Your task to perform on an android device: turn off data saver in the chrome app Image 0: 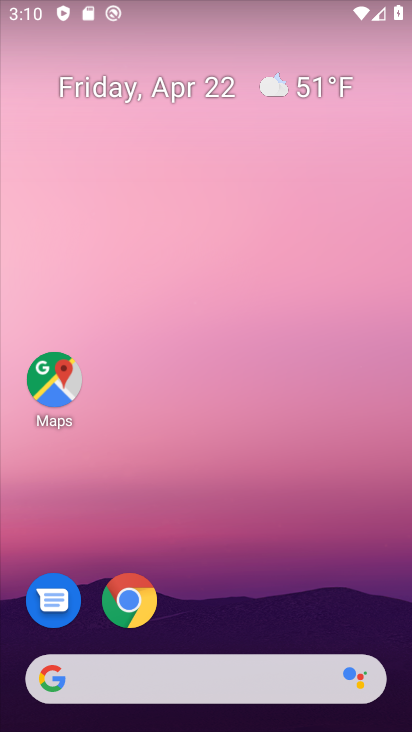
Step 0: drag from (267, 646) to (191, 112)
Your task to perform on an android device: turn off data saver in the chrome app Image 1: 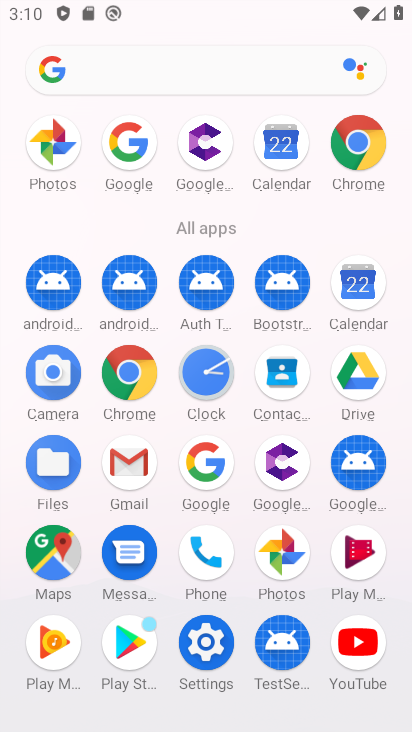
Step 1: click (354, 131)
Your task to perform on an android device: turn off data saver in the chrome app Image 2: 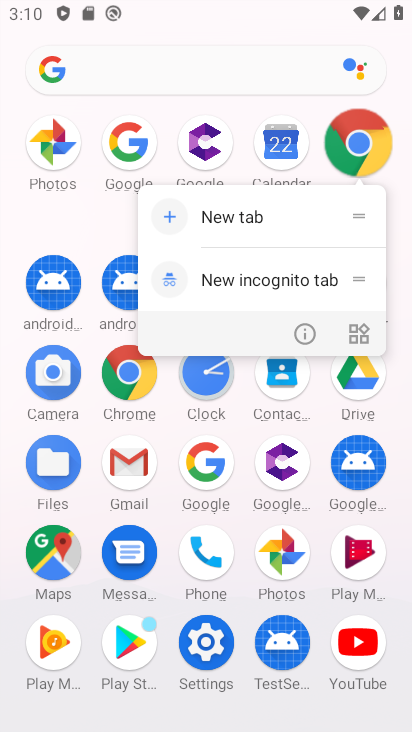
Step 2: click (357, 141)
Your task to perform on an android device: turn off data saver in the chrome app Image 3: 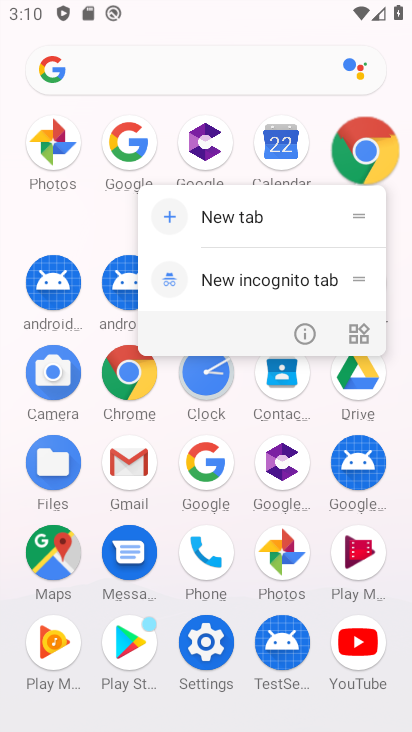
Step 3: click (360, 148)
Your task to perform on an android device: turn off data saver in the chrome app Image 4: 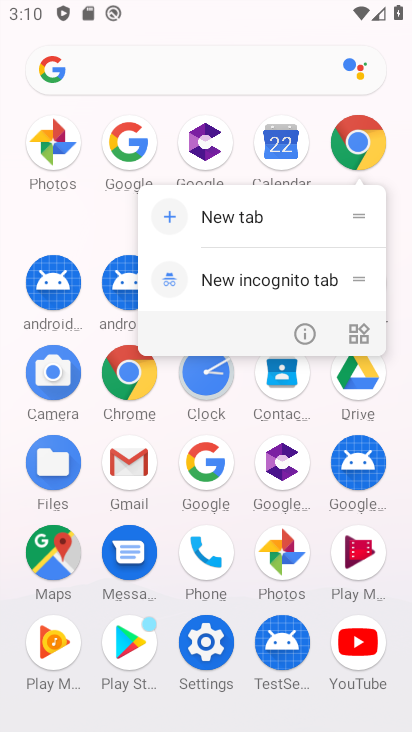
Step 4: click (360, 148)
Your task to perform on an android device: turn off data saver in the chrome app Image 5: 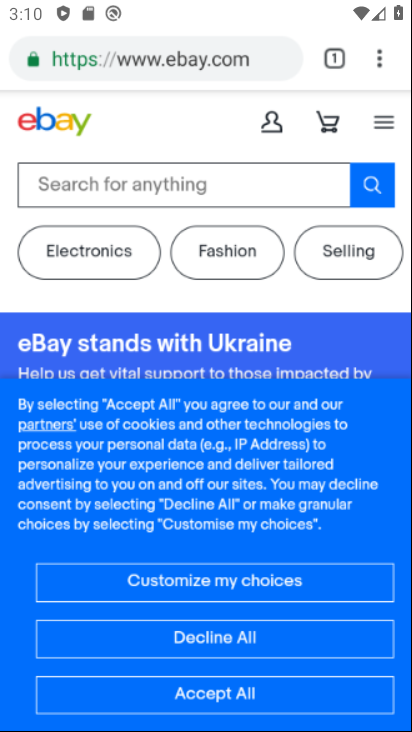
Step 5: click (359, 148)
Your task to perform on an android device: turn off data saver in the chrome app Image 6: 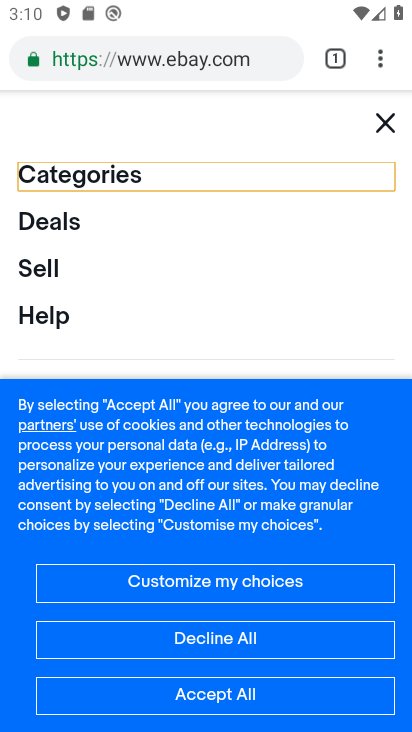
Step 6: click (381, 124)
Your task to perform on an android device: turn off data saver in the chrome app Image 7: 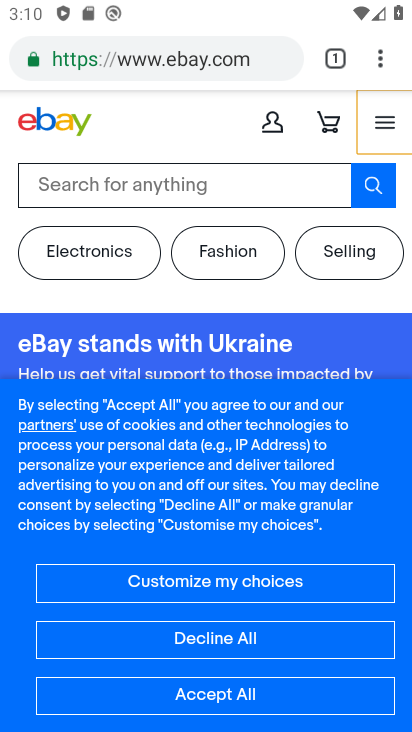
Step 7: press home button
Your task to perform on an android device: turn off data saver in the chrome app Image 8: 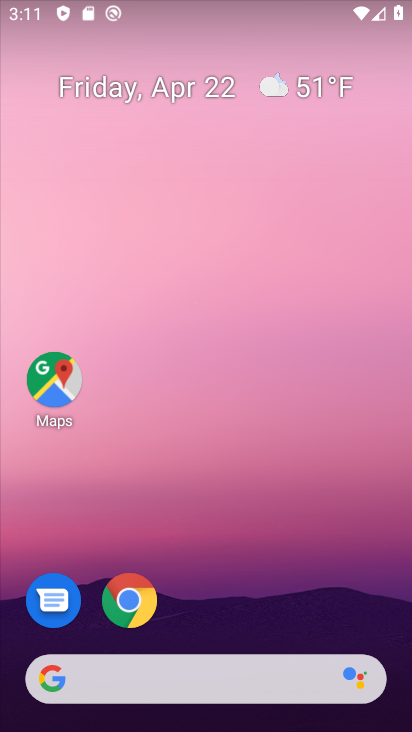
Step 8: drag from (327, 713) to (228, 157)
Your task to perform on an android device: turn off data saver in the chrome app Image 9: 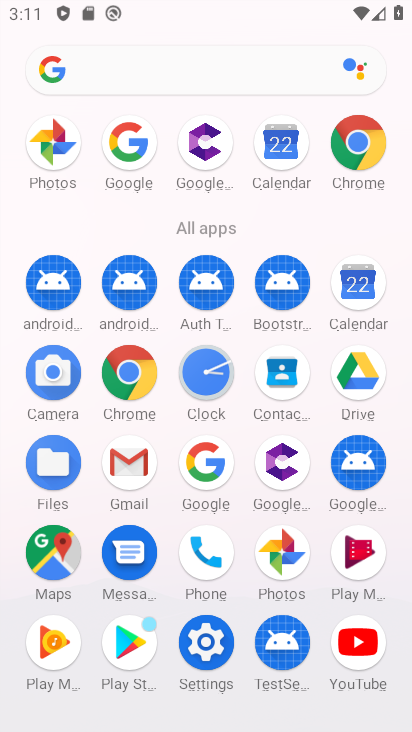
Step 9: click (359, 146)
Your task to perform on an android device: turn off data saver in the chrome app Image 10: 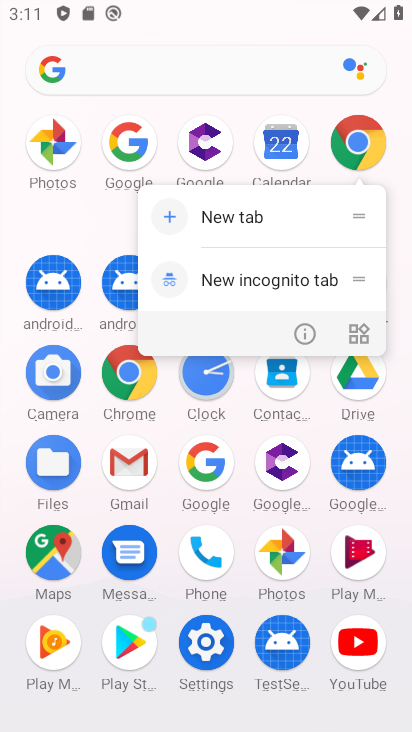
Step 10: click (224, 225)
Your task to perform on an android device: turn off data saver in the chrome app Image 11: 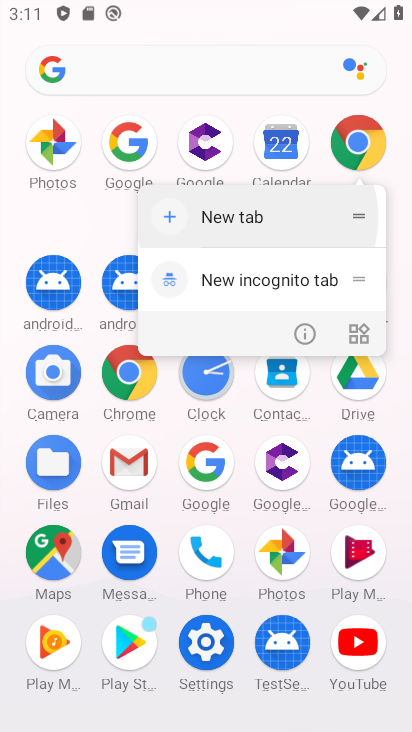
Step 11: click (223, 219)
Your task to perform on an android device: turn off data saver in the chrome app Image 12: 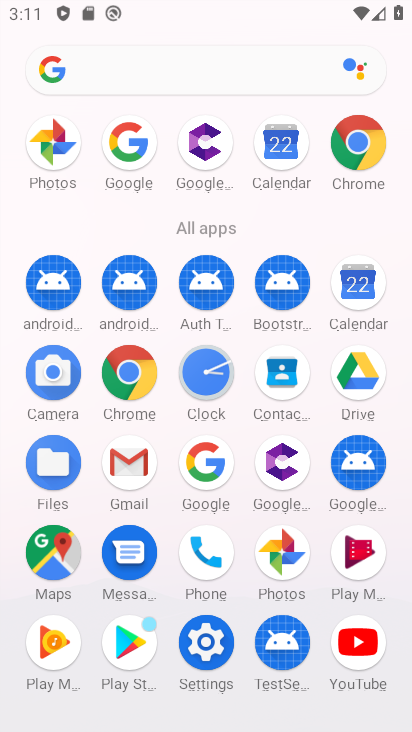
Step 12: click (221, 219)
Your task to perform on an android device: turn off data saver in the chrome app Image 13: 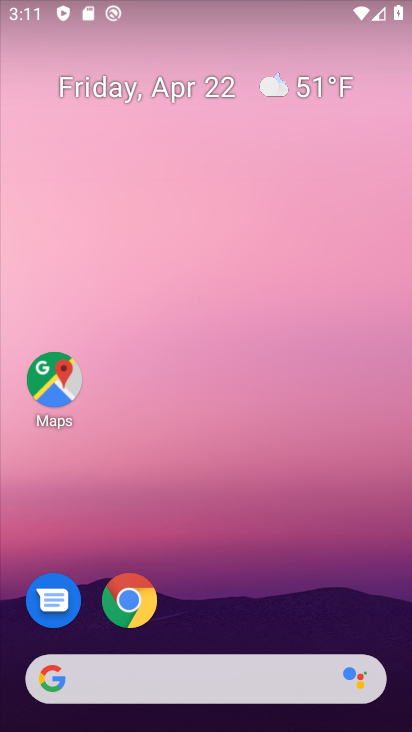
Step 13: click (219, 218)
Your task to perform on an android device: turn off data saver in the chrome app Image 14: 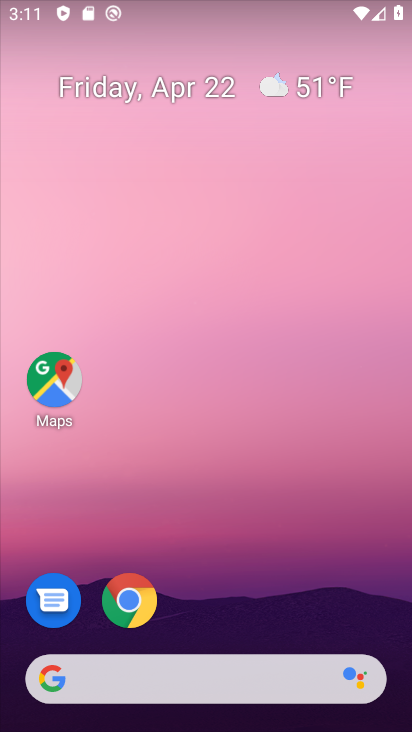
Step 14: click (221, 216)
Your task to perform on an android device: turn off data saver in the chrome app Image 15: 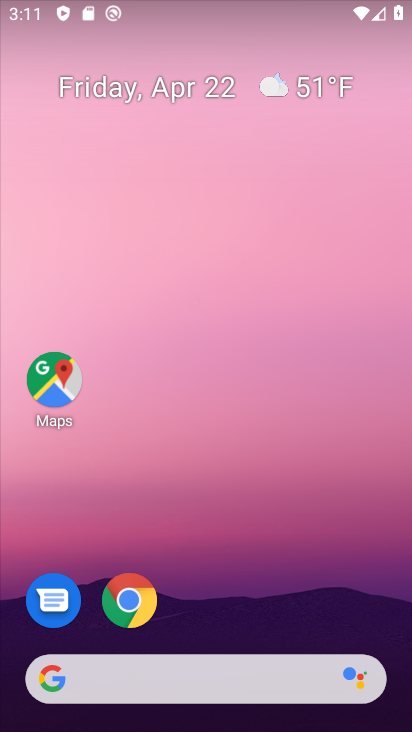
Step 15: drag from (276, 469) to (275, 254)
Your task to perform on an android device: turn off data saver in the chrome app Image 16: 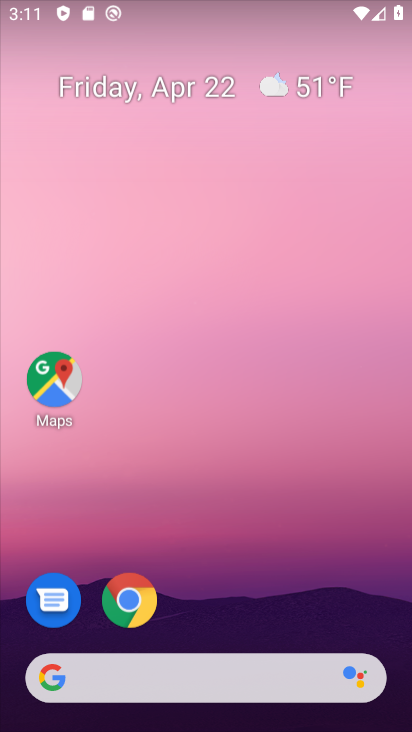
Step 16: drag from (265, 457) to (265, 238)
Your task to perform on an android device: turn off data saver in the chrome app Image 17: 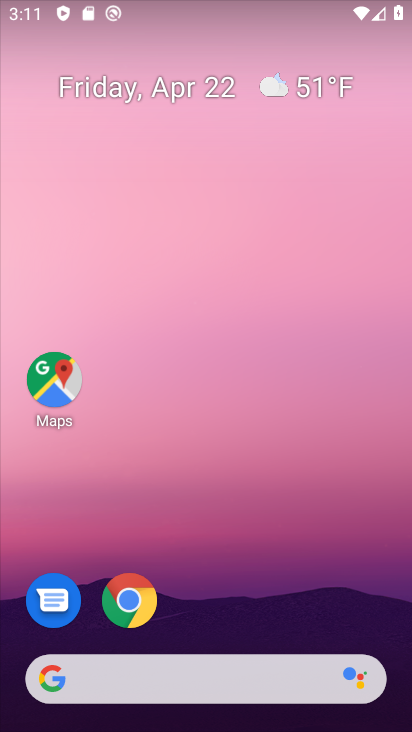
Step 17: drag from (230, 501) to (175, 249)
Your task to perform on an android device: turn off data saver in the chrome app Image 18: 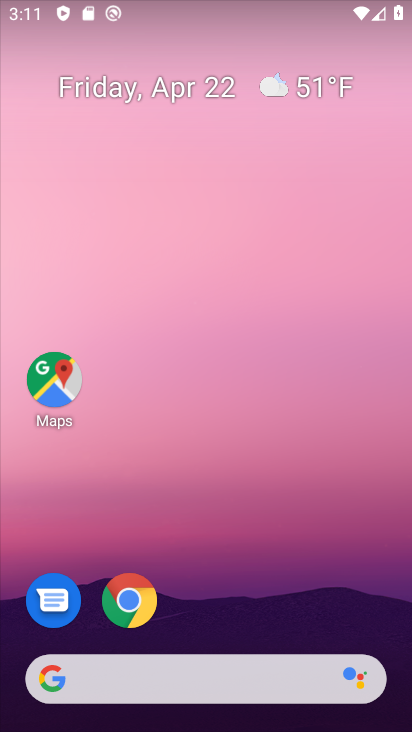
Step 18: drag from (241, 399) to (216, 143)
Your task to perform on an android device: turn off data saver in the chrome app Image 19: 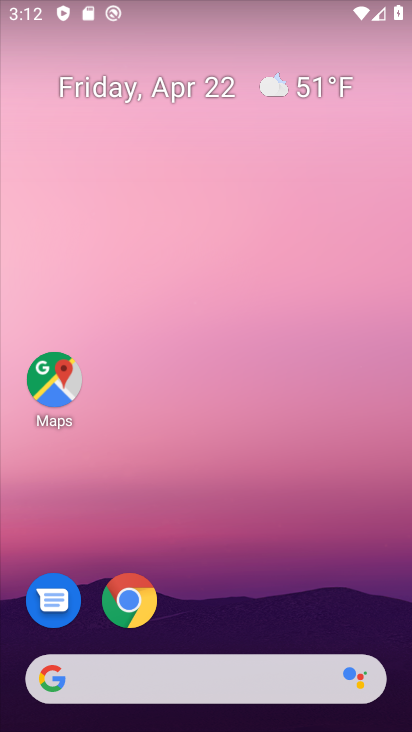
Step 19: drag from (275, 709) to (224, 155)
Your task to perform on an android device: turn off data saver in the chrome app Image 20: 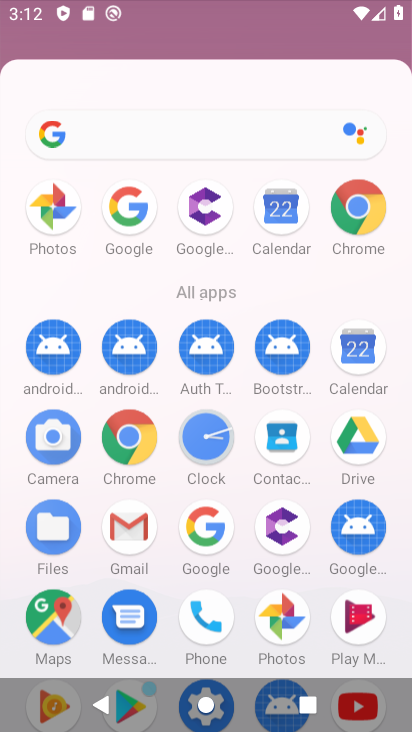
Step 20: drag from (245, 394) to (220, 144)
Your task to perform on an android device: turn off data saver in the chrome app Image 21: 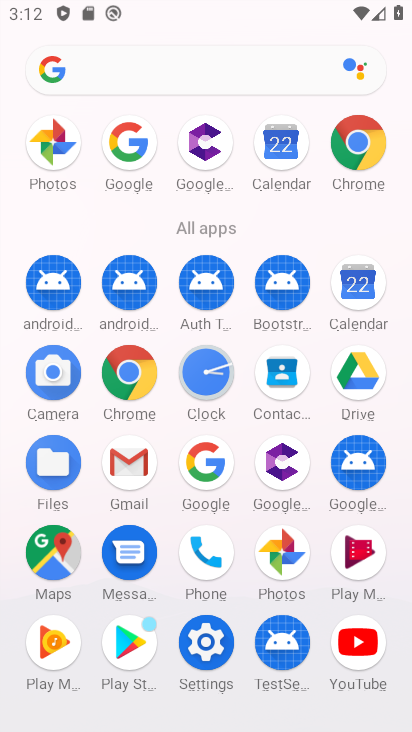
Step 21: click (358, 152)
Your task to perform on an android device: turn off data saver in the chrome app Image 22: 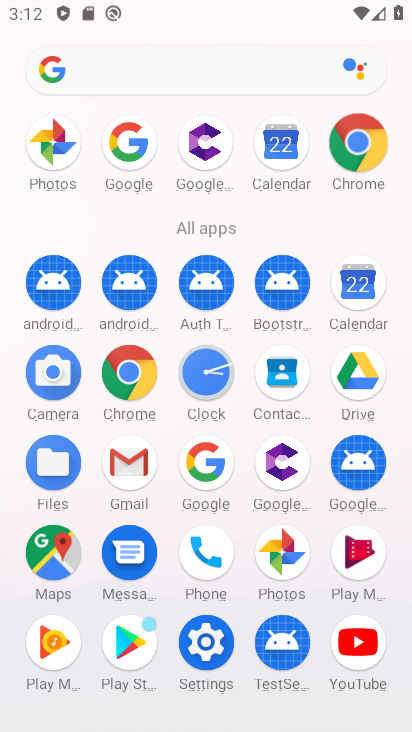
Step 22: click (358, 152)
Your task to perform on an android device: turn off data saver in the chrome app Image 23: 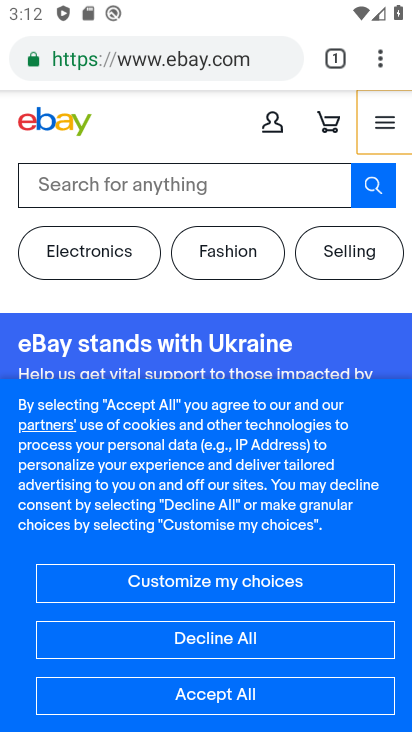
Step 23: drag from (372, 50) to (226, 328)
Your task to perform on an android device: turn off data saver in the chrome app Image 24: 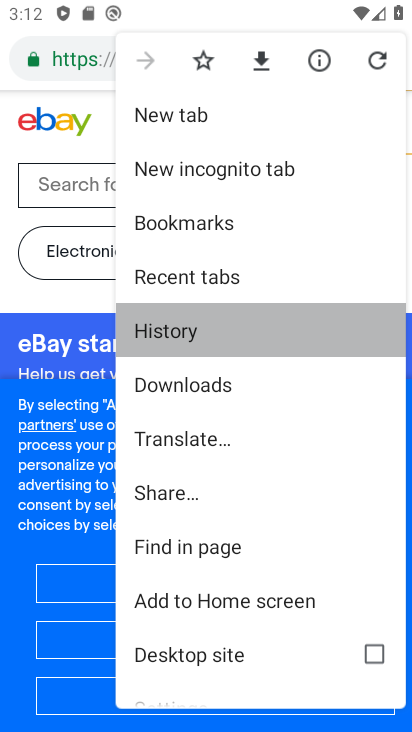
Step 24: click (226, 328)
Your task to perform on an android device: turn off data saver in the chrome app Image 25: 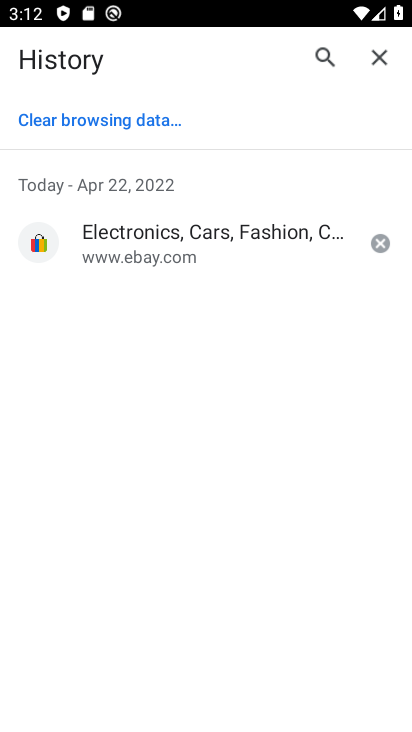
Step 25: click (380, 59)
Your task to perform on an android device: turn off data saver in the chrome app Image 26: 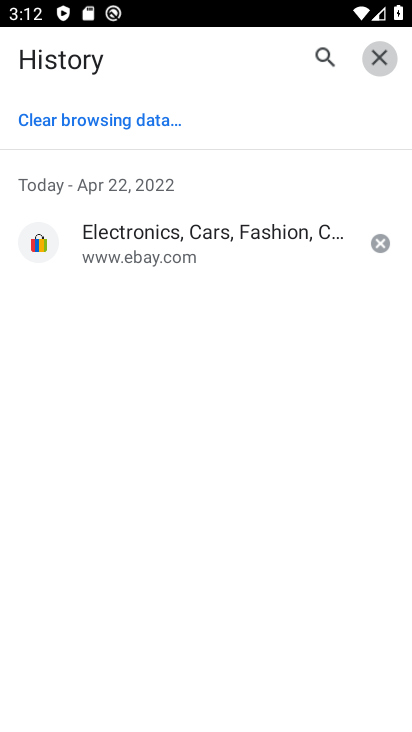
Step 26: click (380, 59)
Your task to perform on an android device: turn off data saver in the chrome app Image 27: 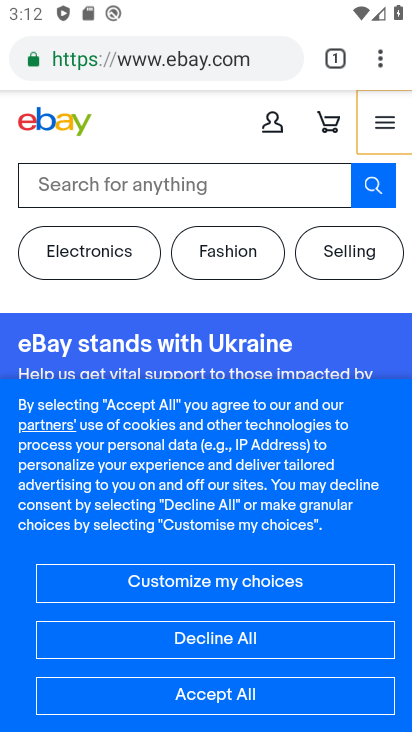
Step 27: drag from (384, 61) to (171, 621)
Your task to perform on an android device: turn off data saver in the chrome app Image 28: 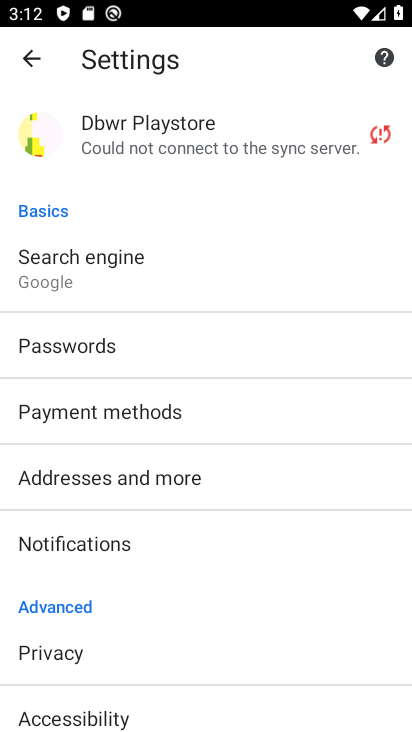
Step 28: drag from (137, 628) to (132, 209)
Your task to perform on an android device: turn off data saver in the chrome app Image 29: 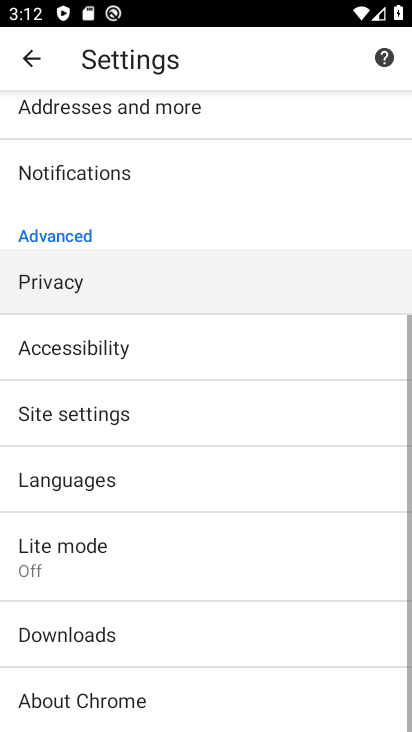
Step 29: drag from (166, 595) to (108, 157)
Your task to perform on an android device: turn off data saver in the chrome app Image 30: 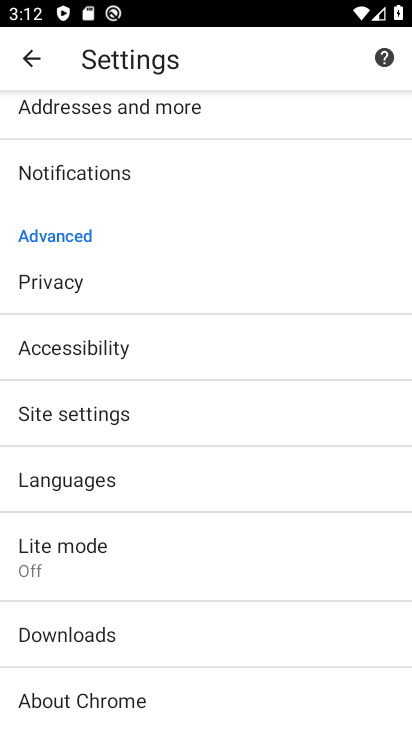
Step 30: click (59, 547)
Your task to perform on an android device: turn off data saver in the chrome app Image 31: 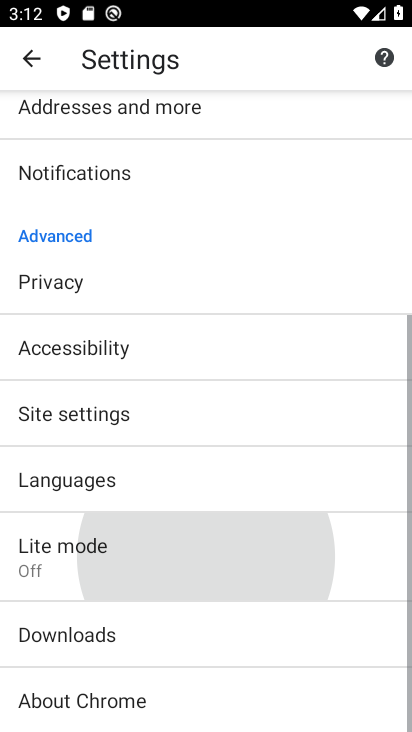
Step 31: click (59, 547)
Your task to perform on an android device: turn off data saver in the chrome app Image 32: 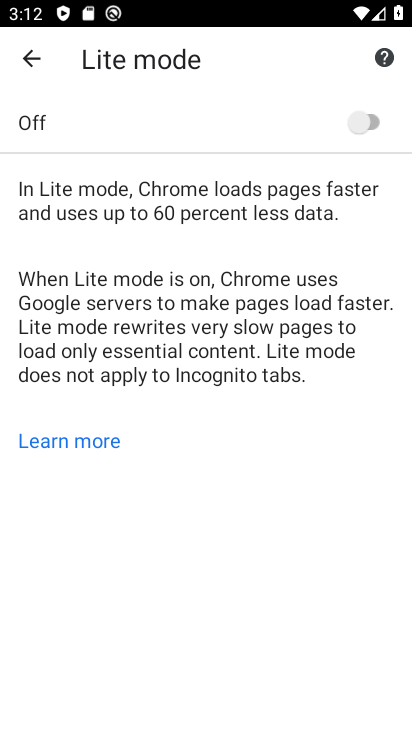
Step 32: click (61, 540)
Your task to perform on an android device: turn off data saver in the chrome app Image 33: 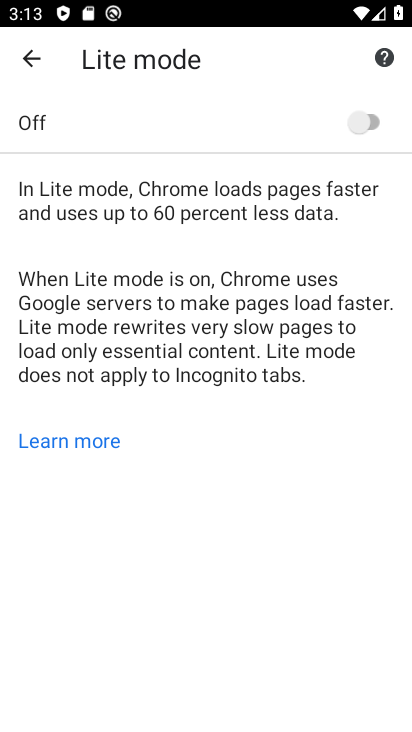
Step 33: click (359, 114)
Your task to perform on an android device: turn off data saver in the chrome app Image 34: 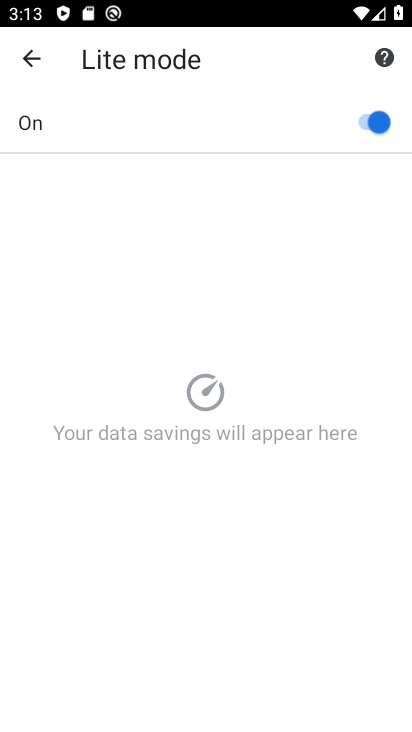
Step 34: click (380, 119)
Your task to perform on an android device: turn off data saver in the chrome app Image 35: 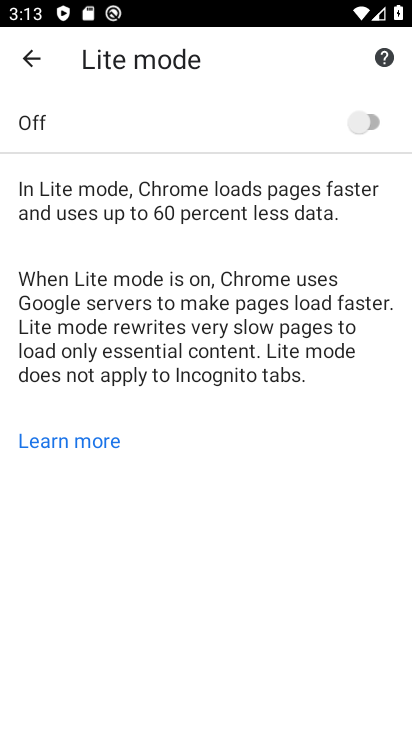
Step 35: task complete